Your task to perform on an android device: change notifications settings Image 0: 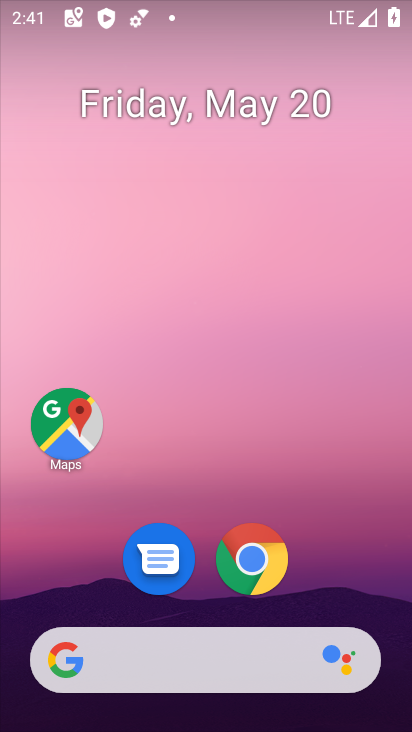
Step 0: drag from (214, 452) to (200, 1)
Your task to perform on an android device: change notifications settings Image 1: 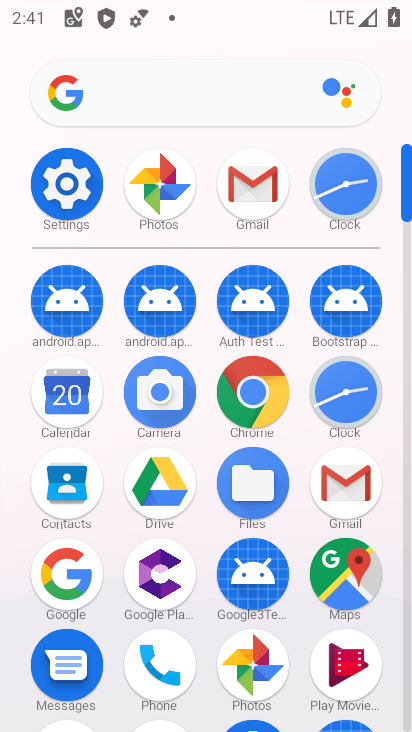
Step 1: click (71, 178)
Your task to perform on an android device: change notifications settings Image 2: 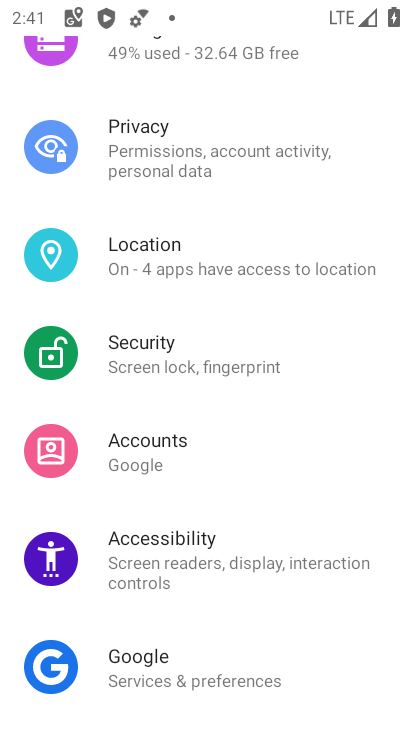
Step 2: drag from (278, 221) to (256, 651)
Your task to perform on an android device: change notifications settings Image 3: 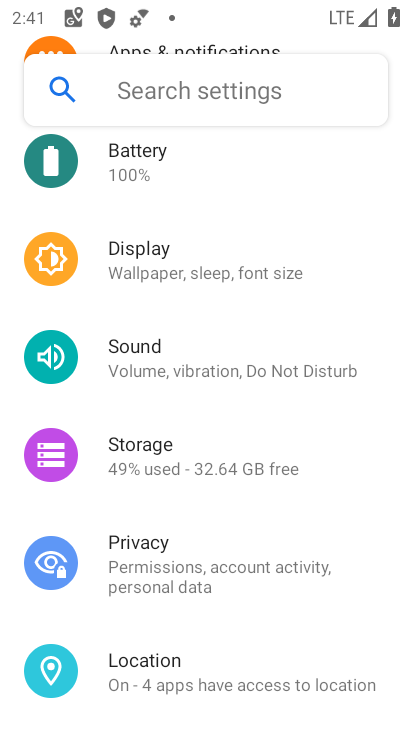
Step 3: drag from (221, 211) to (239, 660)
Your task to perform on an android device: change notifications settings Image 4: 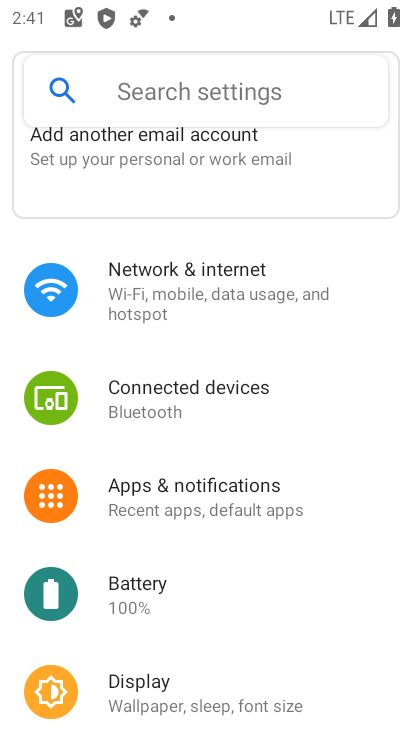
Step 4: click (204, 502)
Your task to perform on an android device: change notifications settings Image 5: 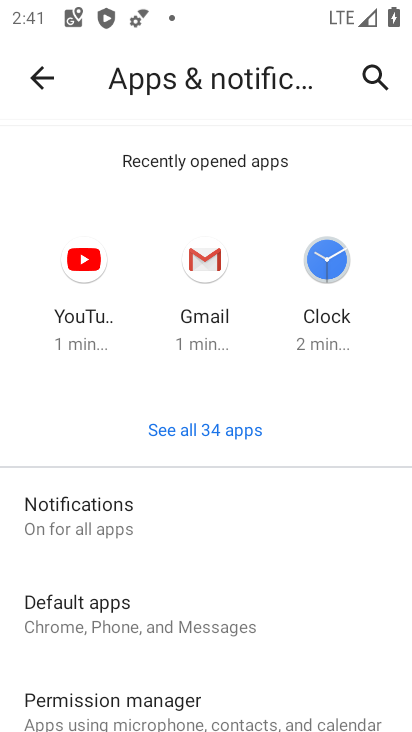
Step 5: click (119, 520)
Your task to perform on an android device: change notifications settings Image 6: 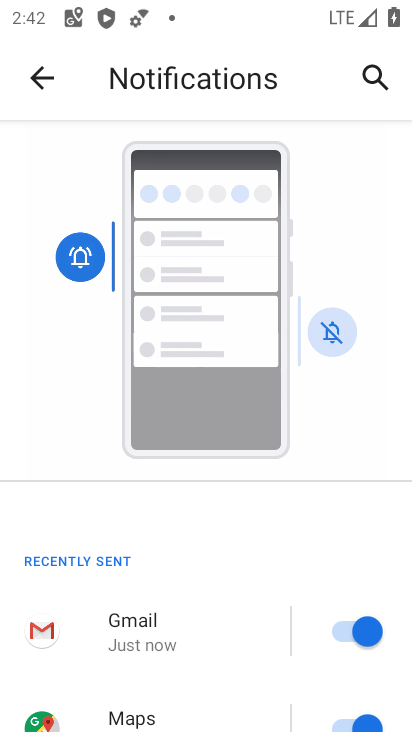
Step 6: drag from (209, 616) to (245, 198)
Your task to perform on an android device: change notifications settings Image 7: 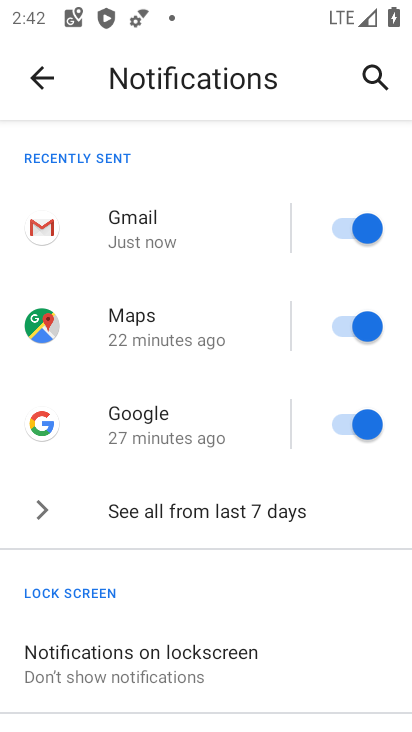
Step 7: click (216, 507)
Your task to perform on an android device: change notifications settings Image 8: 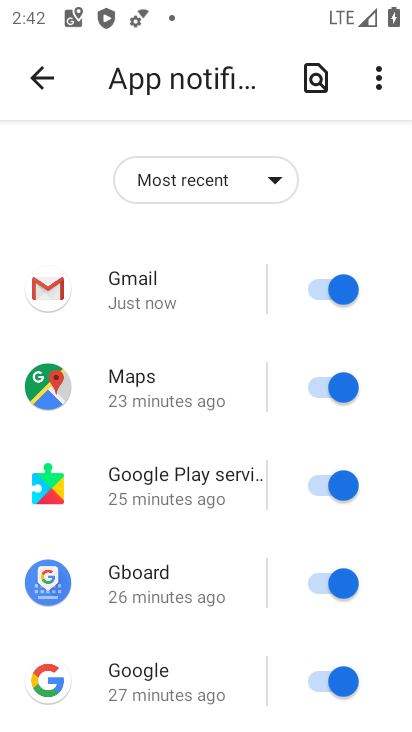
Step 8: click (326, 288)
Your task to perform on an android device: change notifications settings Image 9: 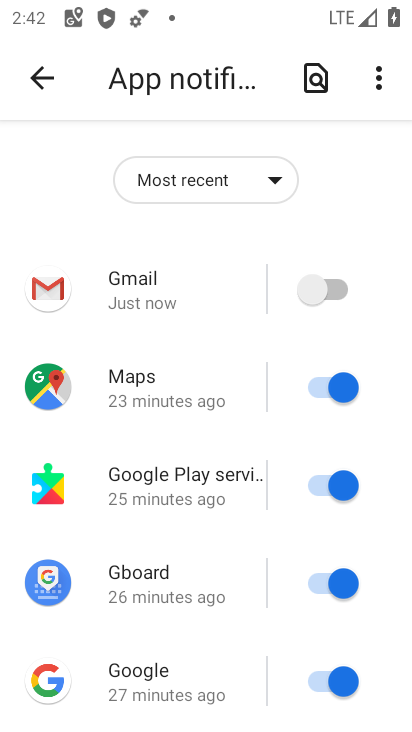
Step 9: click (326, 378)
Your task to perform on an android device: change notifications settings Image 10: 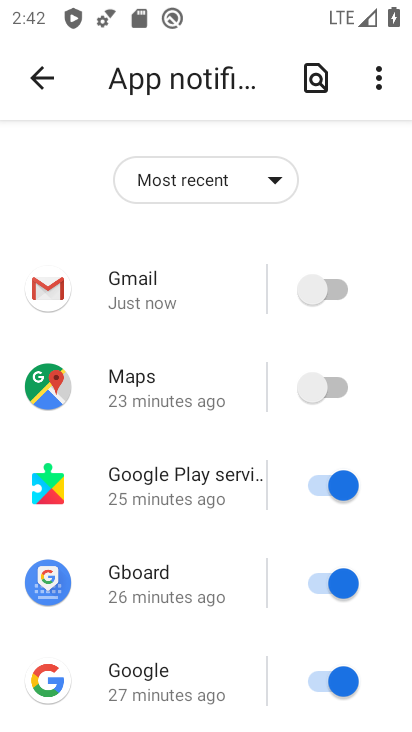
Step 10: click (333, 479)
Your task to perform on an android device: change notifications settings Image 11: 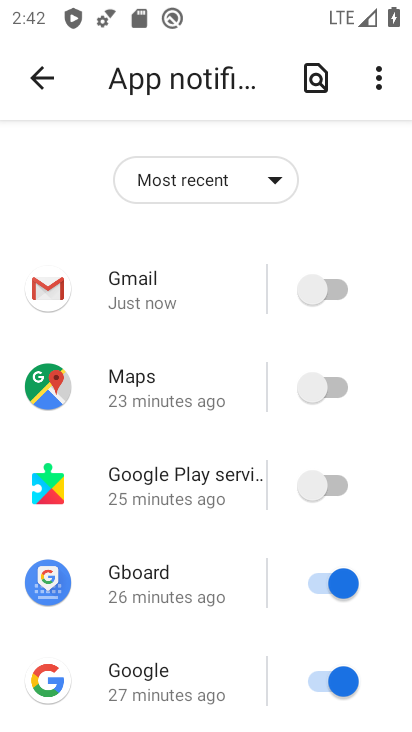
Step 11: click (319, 574)
Your task to perform on an android device: change notifications settings Image 12: 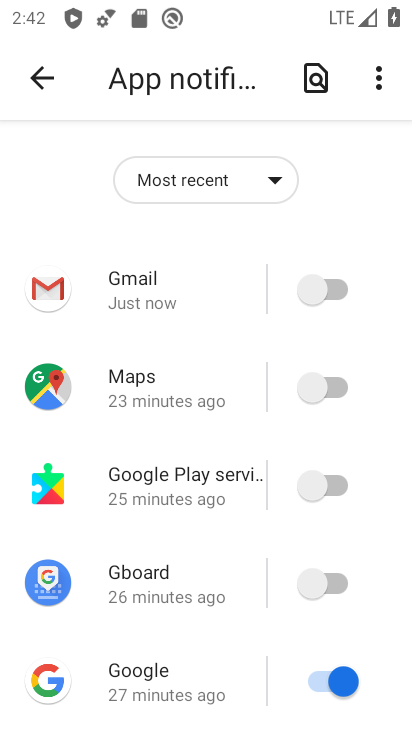
Step 12: drag from (233, 580) to (220, 144)
Your task to perform on an android device: change notifications settings Image 13: 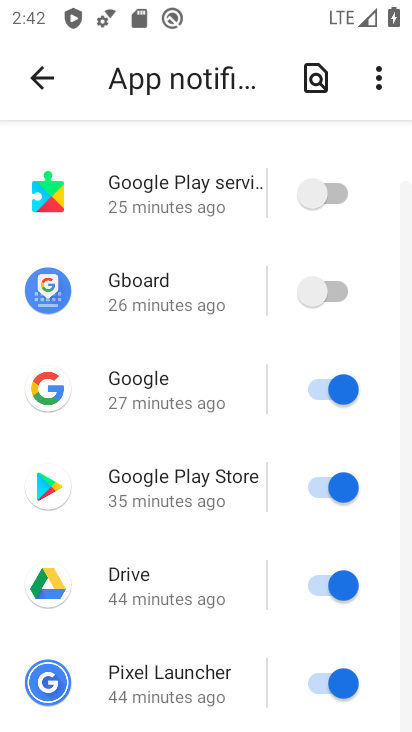
Step 13: click (327, 382)
Your task to perform on an android device: change notifications settings Image 14: 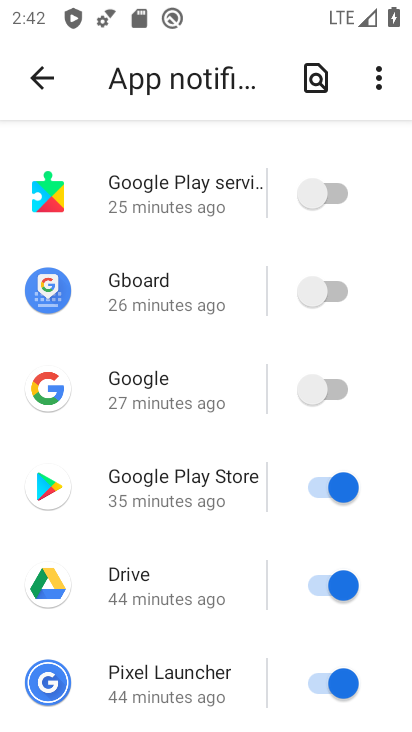
Step 14: click (330, 493)
Your task to perform on an android device: change notifications settings Image 15: 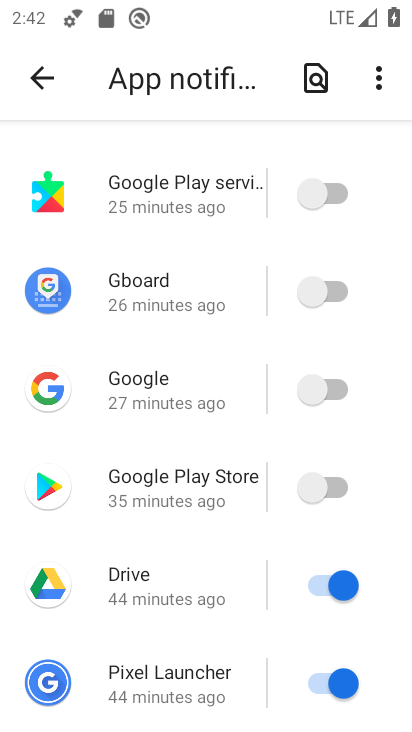
Step 15: click (325, 583)
Your task to perform on an android device: change notifications settings Image 16: 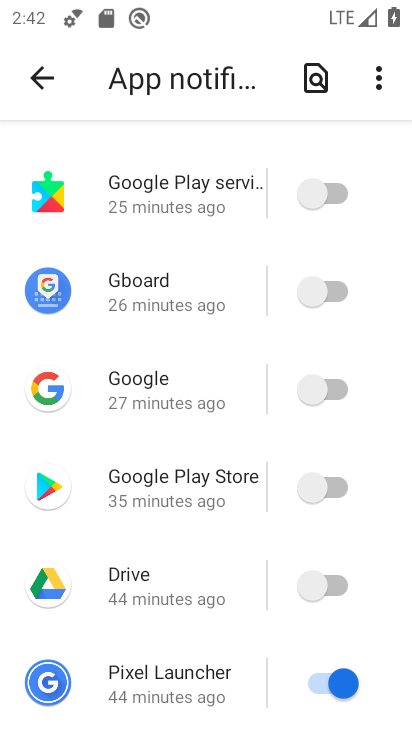
Step 16: click (327, 687)
Your task to perform on an android device: change notifications settings Image 17: 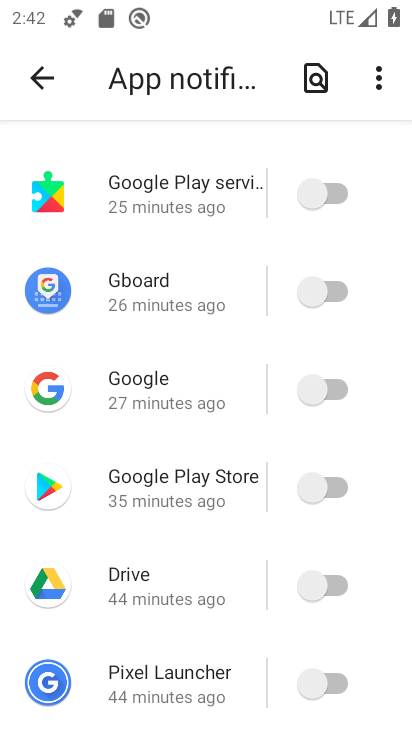
Step 17: task complete